Your task to perform on an android device: Open my contact list Image 0: 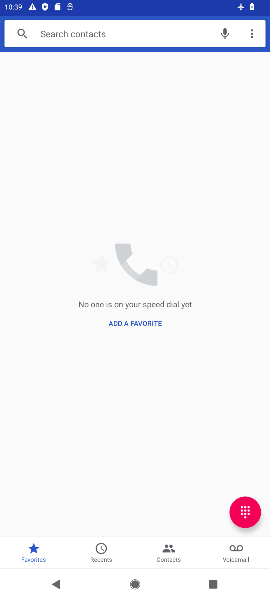
Step 0: press home button
Your task to perform on an android device: Open my contact list Image 1: 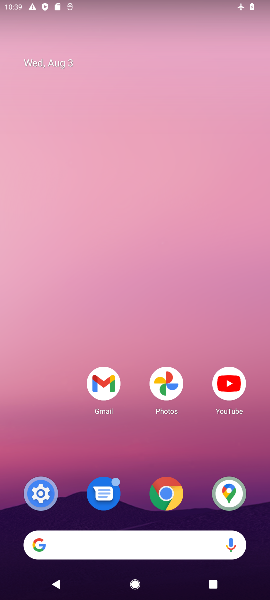
Step 1: click (231, 492)
Your task to perform on an android device: Open my contact list Image 2: 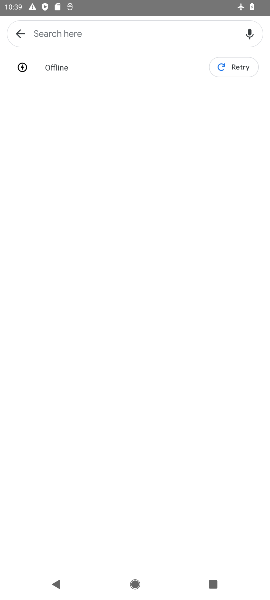
Step 2: click (103, 35)
Your task to perform on an android device: Open my contact list Image 3: 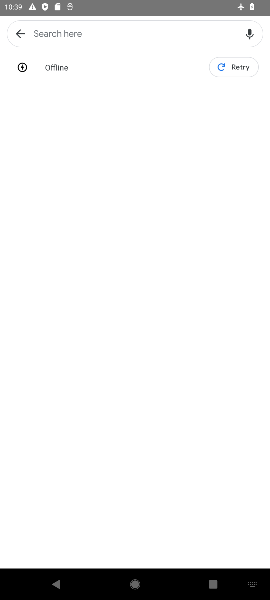
Step 3: type "coffee shops"
Your task to perform on an android device: Open my contact list Image 4: 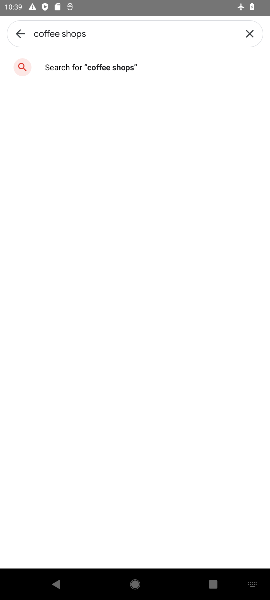
Step 4: click (114, 71)
Your task to perform on an android device: Open my contact list Image 5: 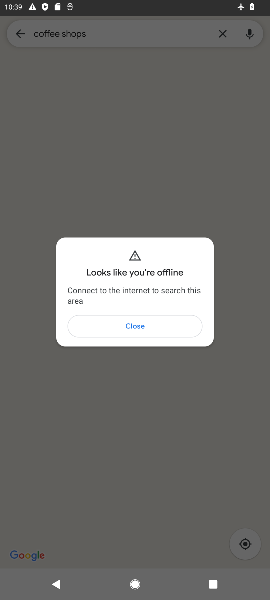
Step 5: task complete